Your task to perform on an android device: Add "bose soundlink mini" to the cart on ebay Image 0: 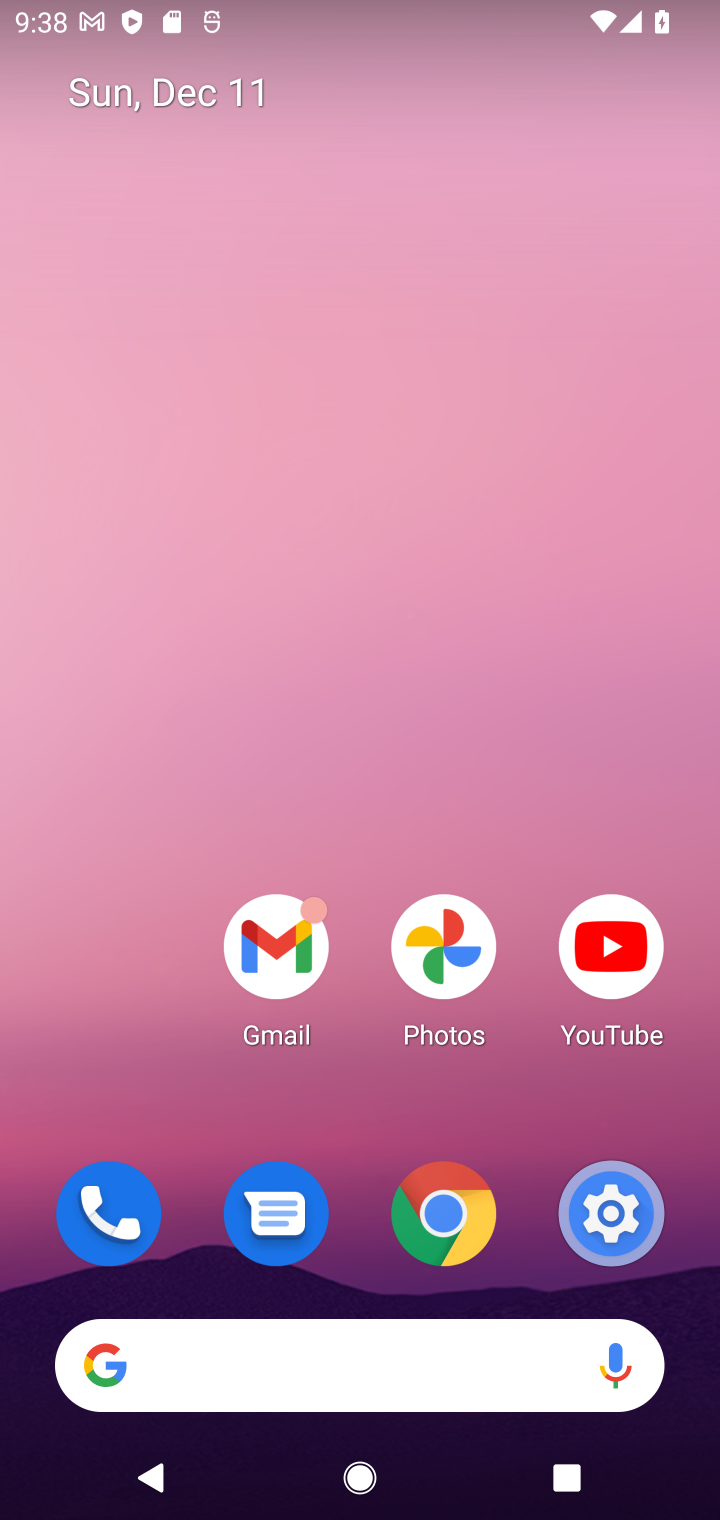
Step 0: click (453, 1371)
Your task to perform on an android device: Add "bose soundlink mini" to the cart on ebay Image 1: 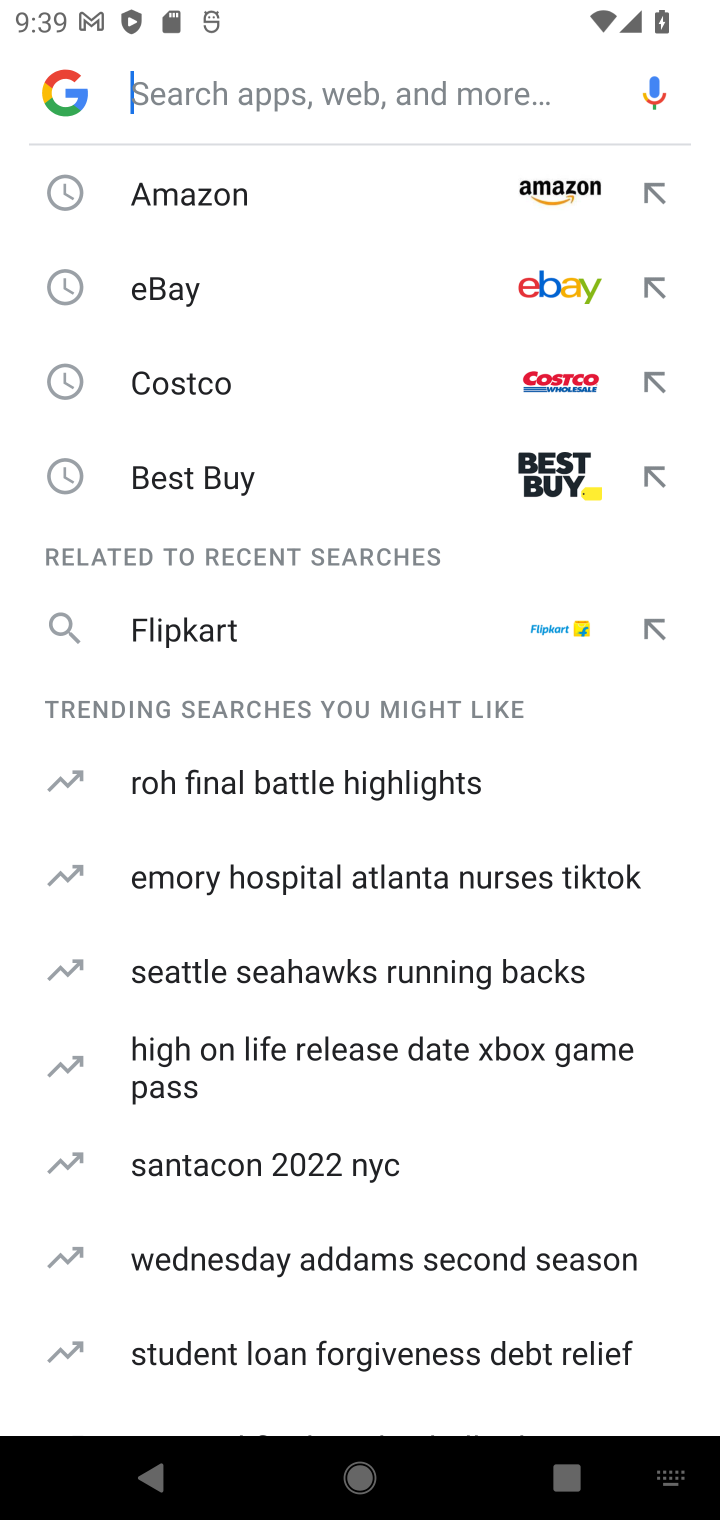
Step 1: type "ebay.com"
Your task to perform on an android device: Add "bose soundlink mini" to the cart on ebay Image 2: 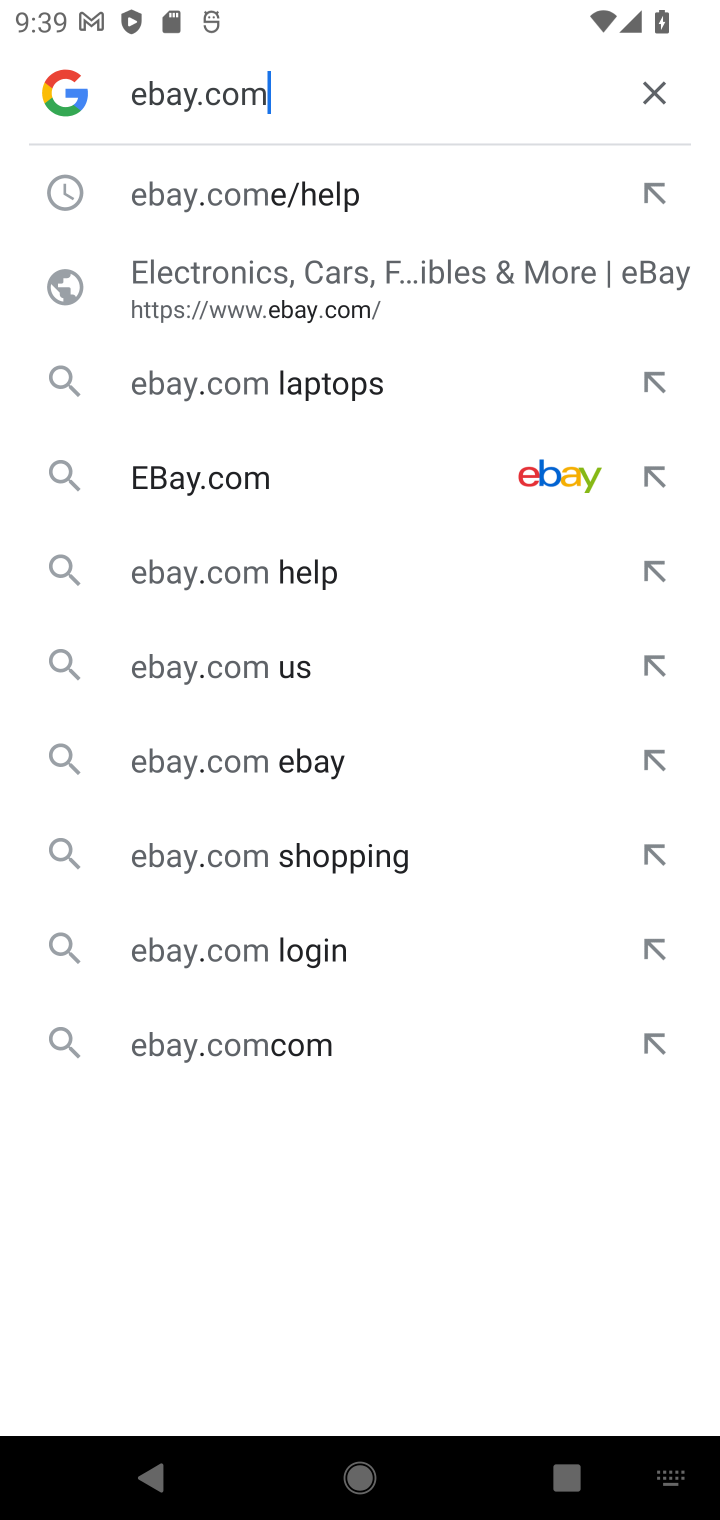
Step 2: click (190, 456)
Your task to perform on an android device: Add "bose soundlink mini" to the cart on ebay Image 3: 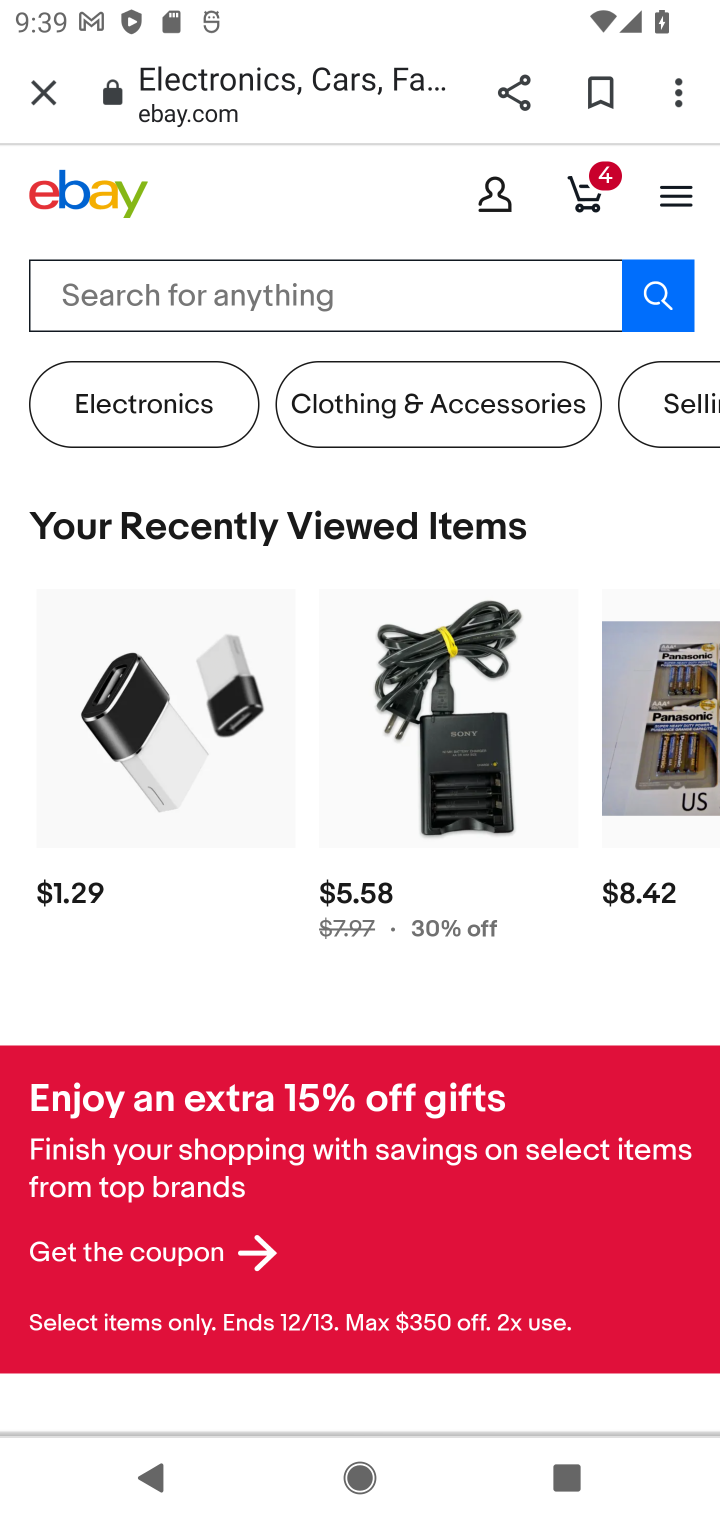
Step 3: click (340, 303)
Your task to perform on an android device: Add "bose soundlink mini" to the cart on ebay Image 4: 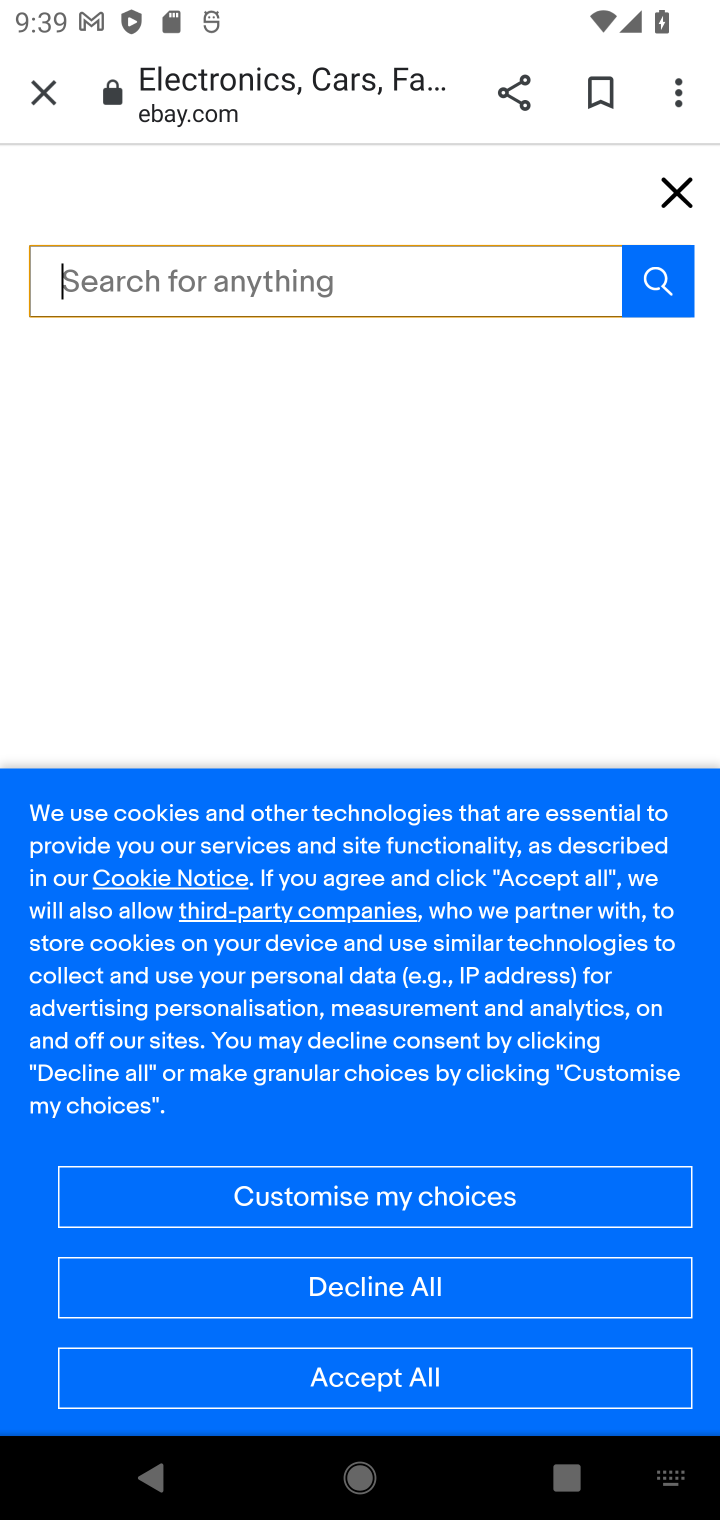
Step 4: type "bose soundlink"
Your task to perform on an android device: Add "bose soundlink mini" to the cart on ebay Image 5: 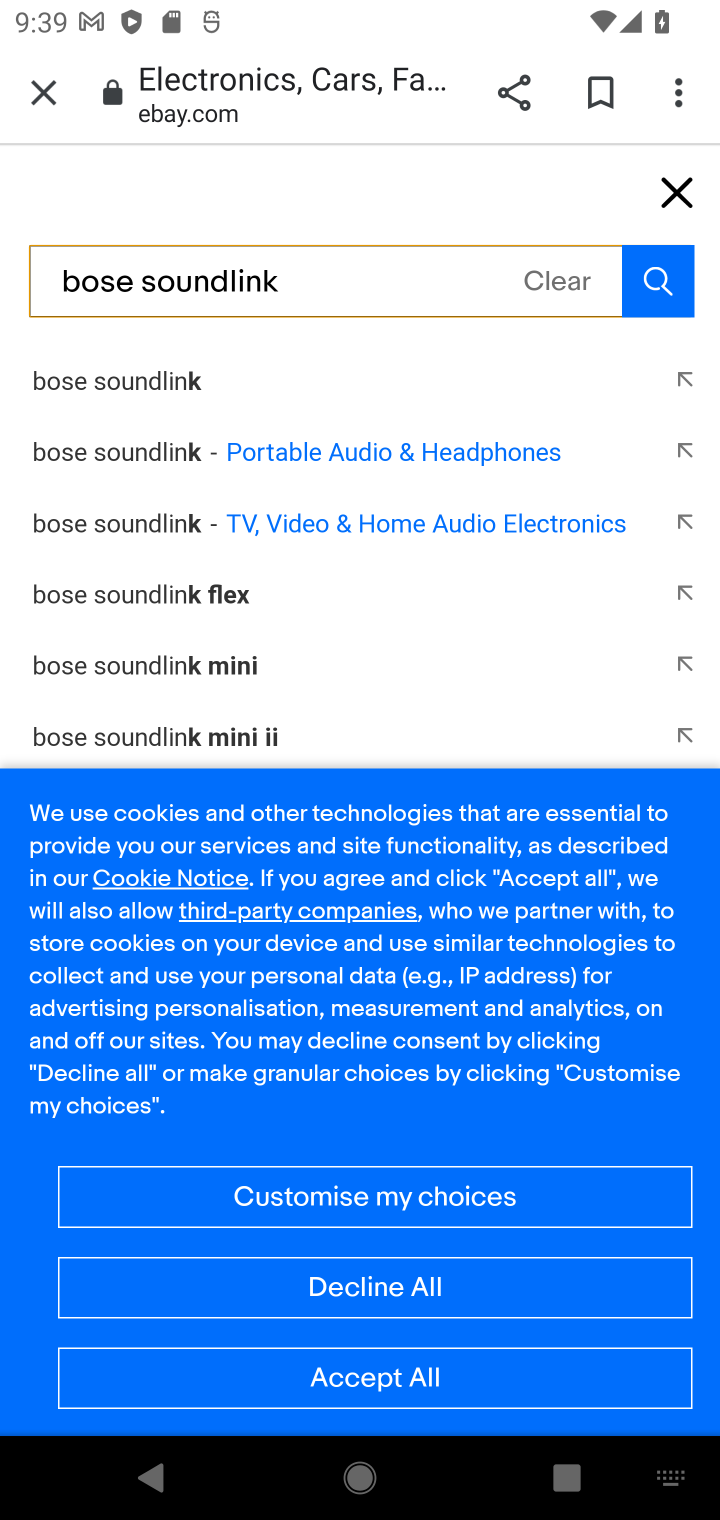
Step 5: click (210, 399)
Your task to perform on an android device: Add "bose soundlink mini" to the cart on ebay Image 6: 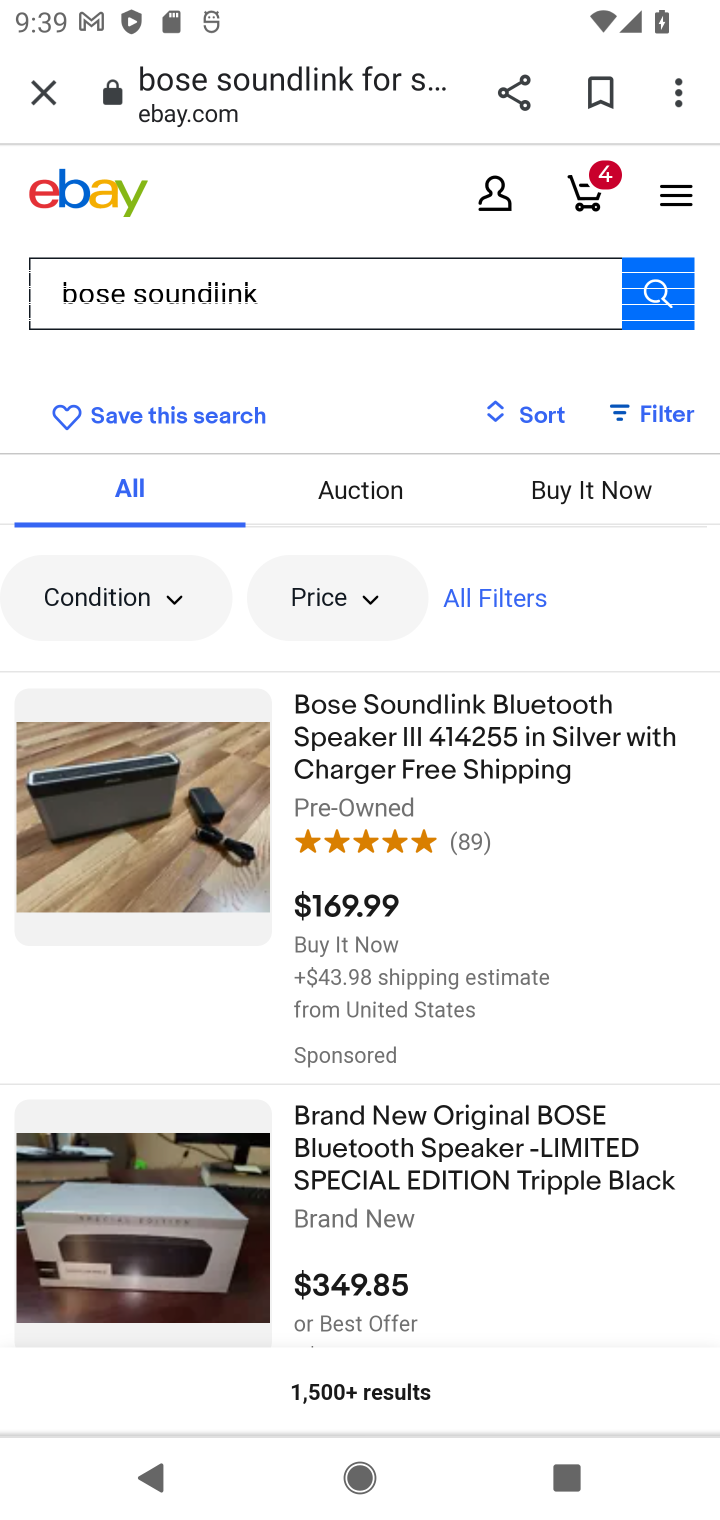
Step 6: click (416, 748)
Your task to perform on an android device: Add "bose soundlink mini" to the cart on ebay Image 7: 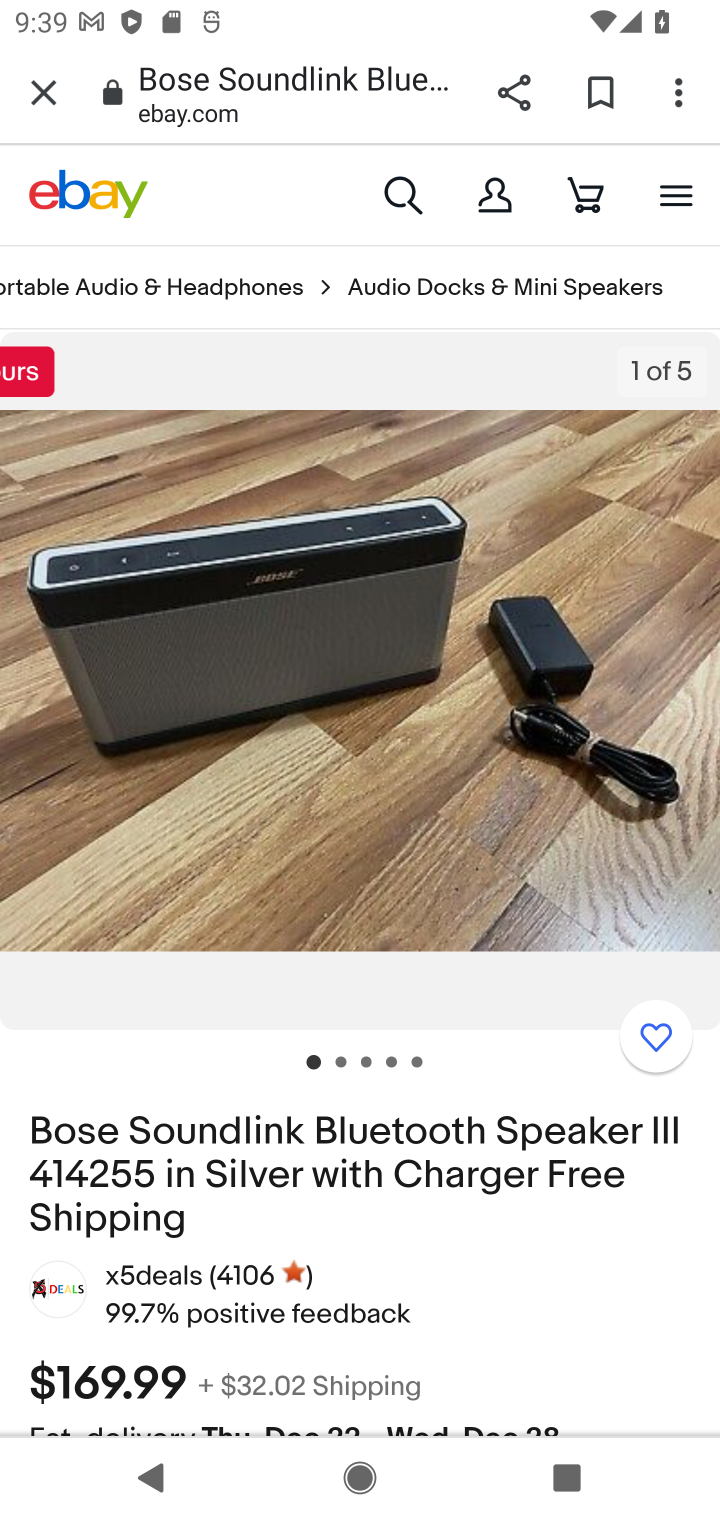
Step 7: drag from (288, 1074) to (289, 243)
Your task to perform on an android device: Add "bose soundlink mini" to the cart on ebay Image 8: 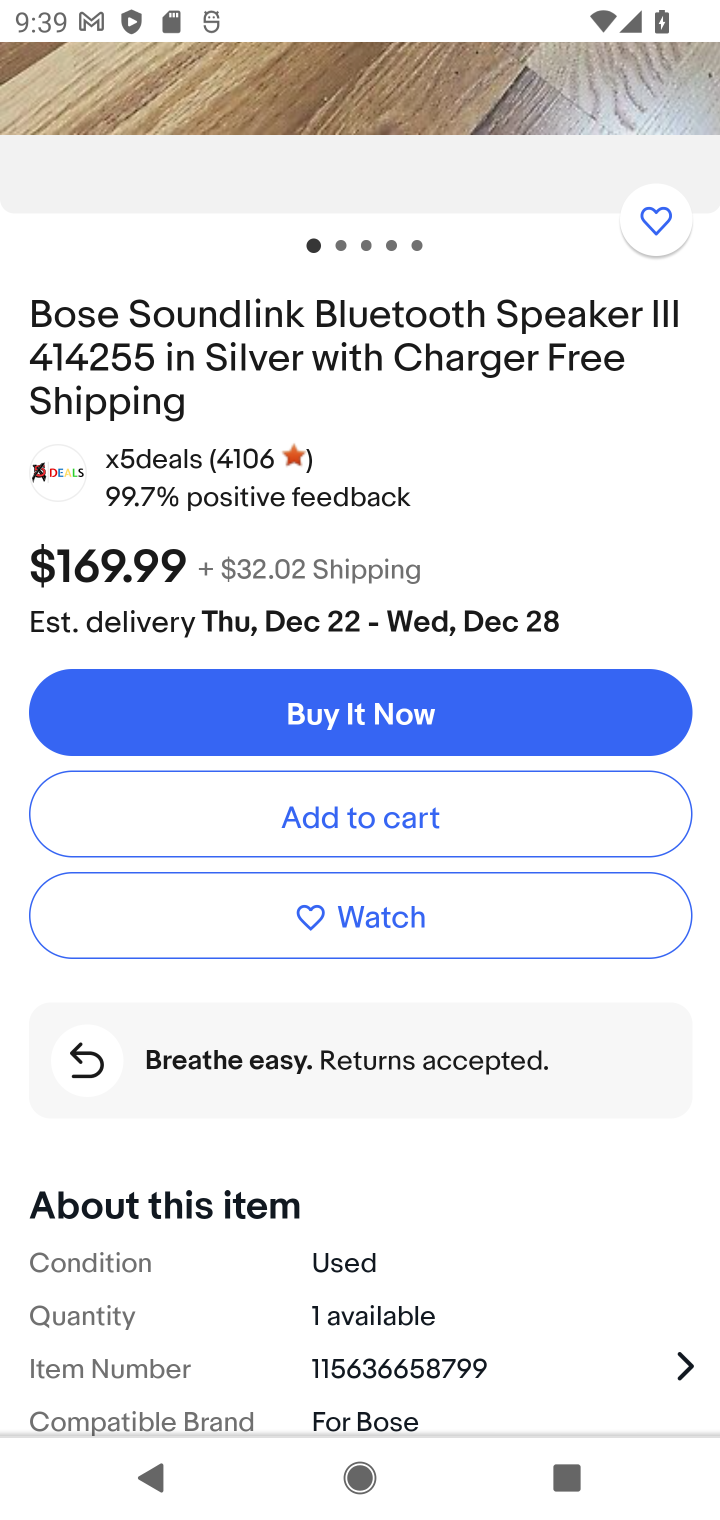
Step 8: click (445, 849)
Your task to perform on an android device: Add "bose soundlink mini" to the cart on ebay Image 9: 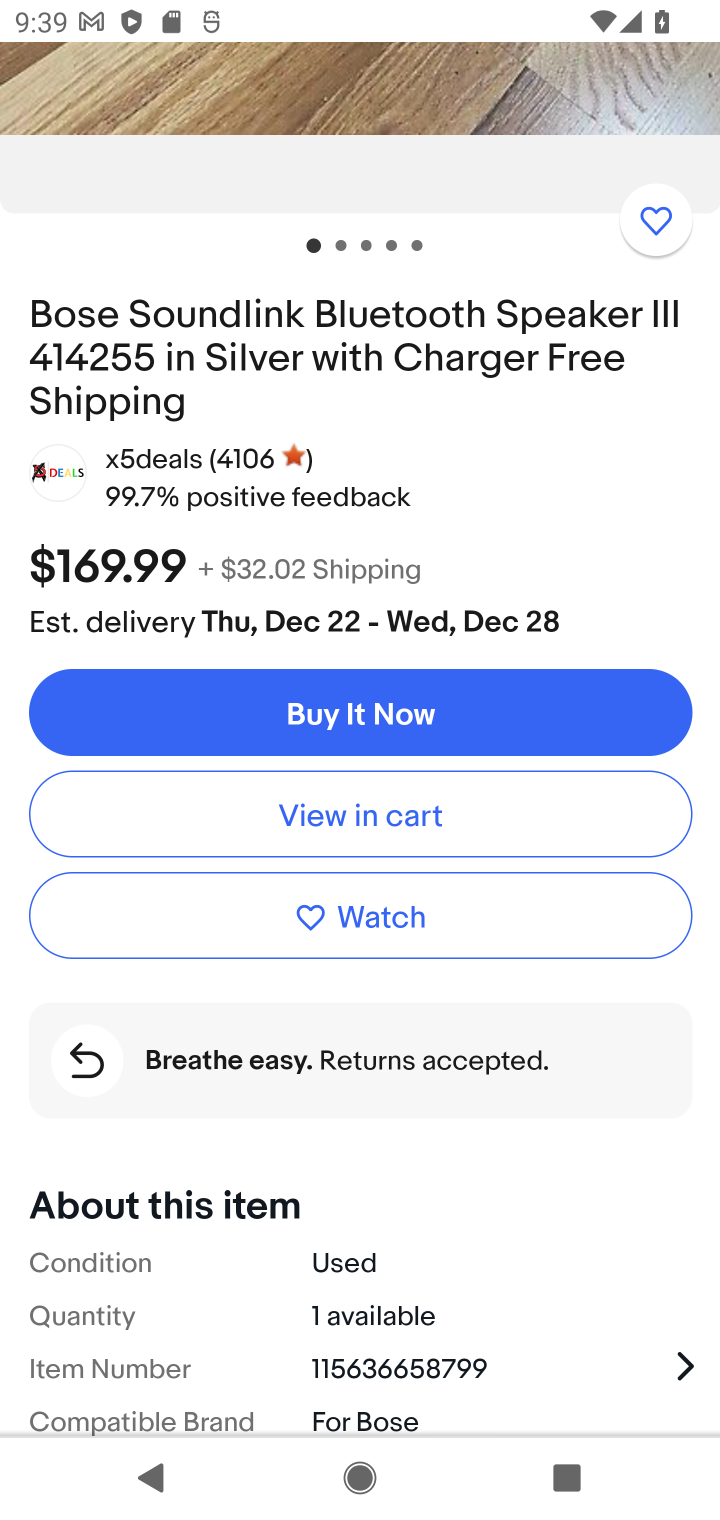
Step 9: task complete